Your task to perform on an android device: Open the web browser Image 0: 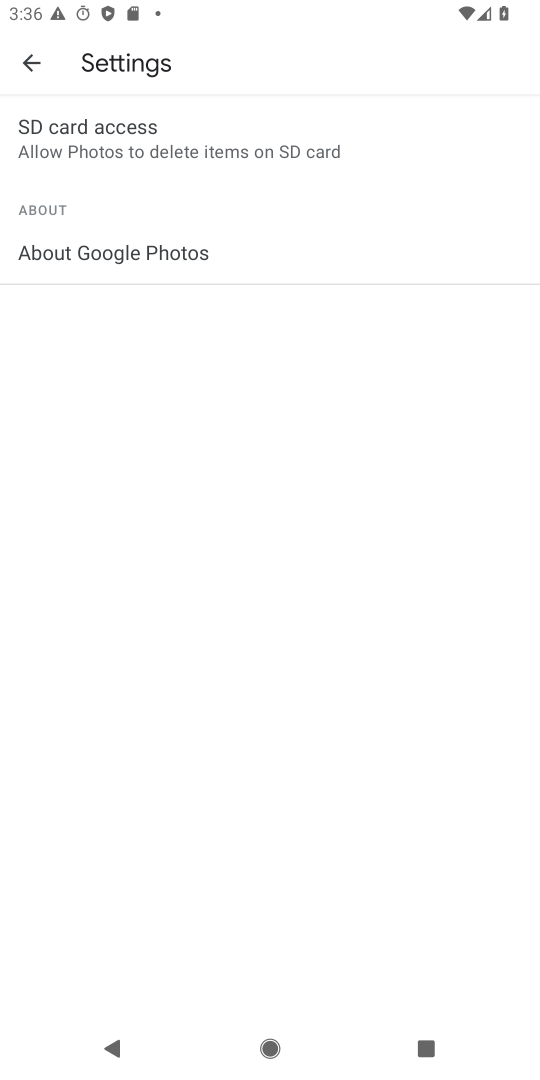
Step 0: press home button
Your task to perform on an android device: Open the web browser Image 1: 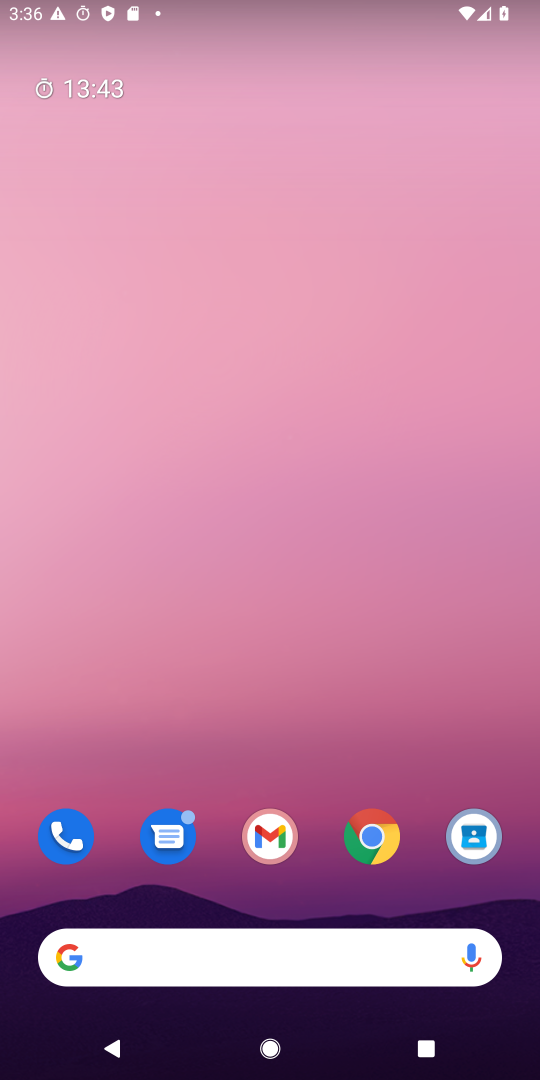
Step 1: drag from (236, 640) to (199, 0)
Your task to perform on an android device: Open the web browser Image 2: 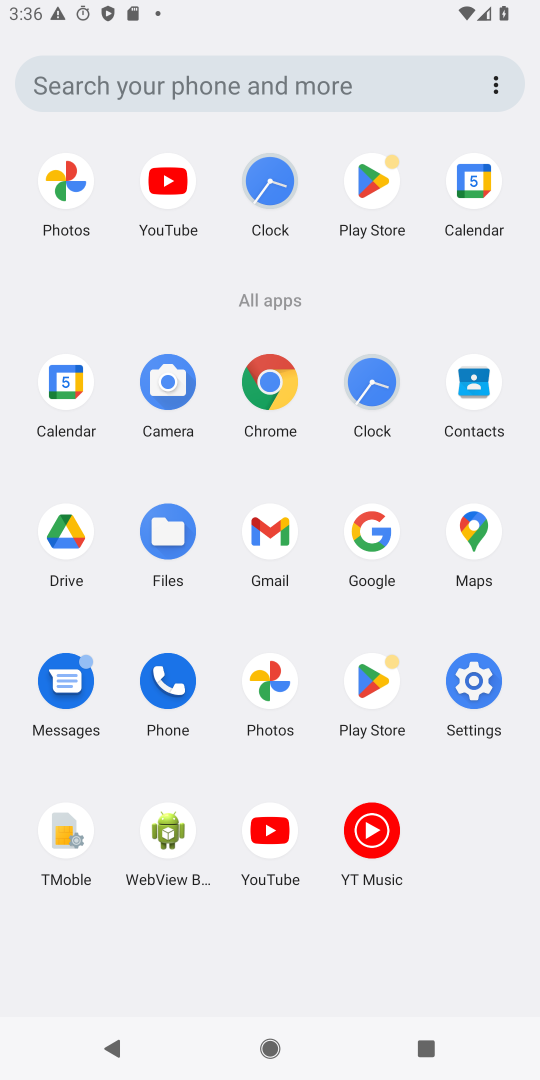
Step 2: click (264, 376)
Your task to perform on an android device: Open the web browser Image 3: 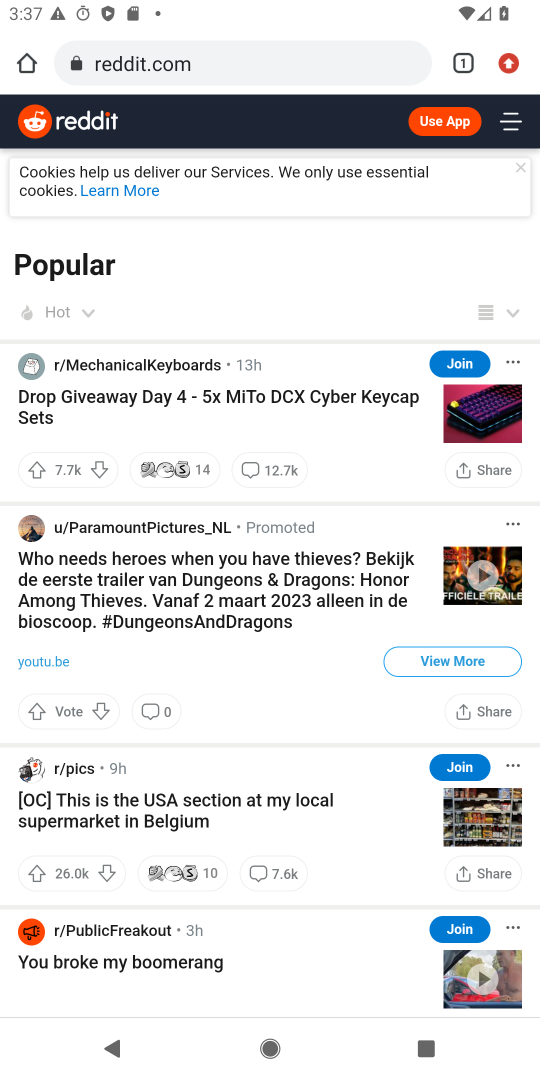
Step 3: task complete